Your task to perform on an android device: turn pop-ups off in chrome Image 0: 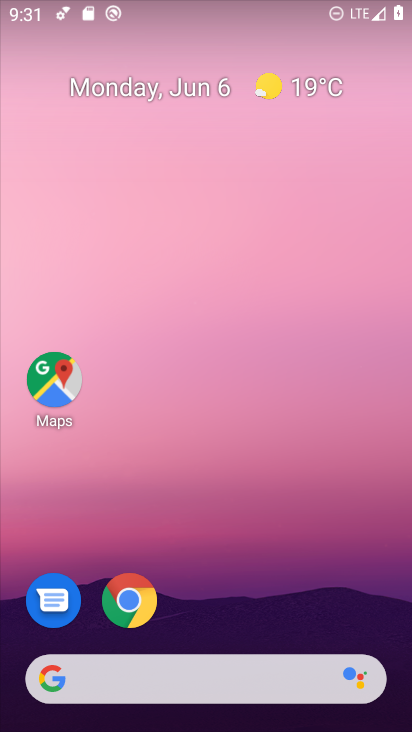
Step 0: click (145, 606)
Your task to perform on an android device: turn pop-ups off in chrome Image 1: 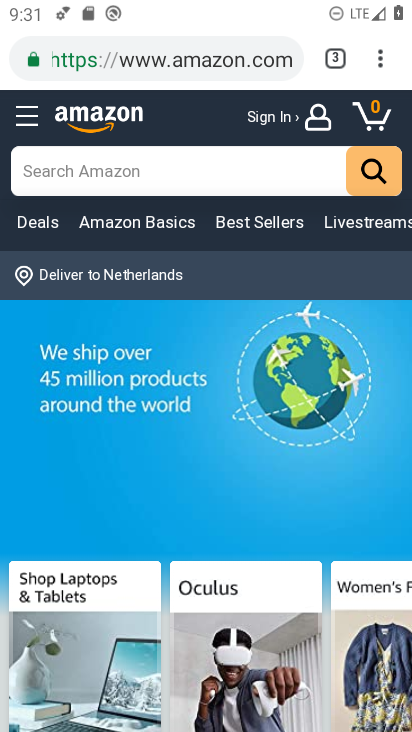
Step 1: click (379, 58)
Your task to perform on an android device: turn pop-ups off in chrome Image 2: 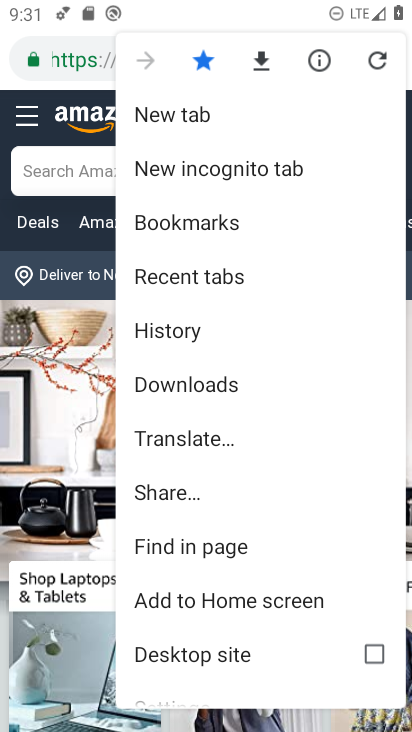
Step 2: drag from (219, 615) to (228, 370)
Your task to perform on an android device: turn pop-ups off in chrome Image 3: 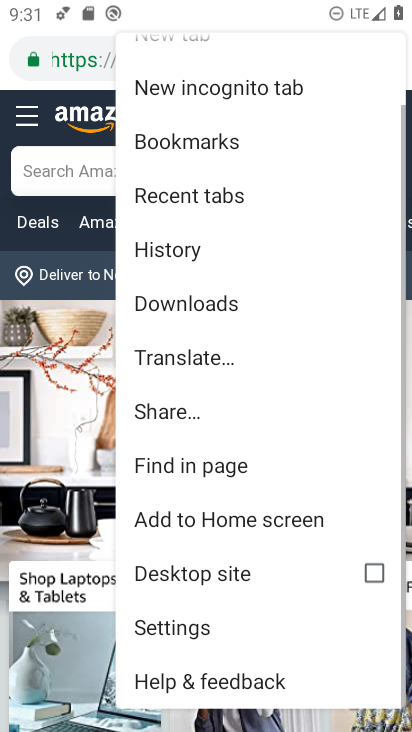
Step 3: click (206, 633)
Your task to perform on an android device: turn pop-ups off in chrome Image 4: 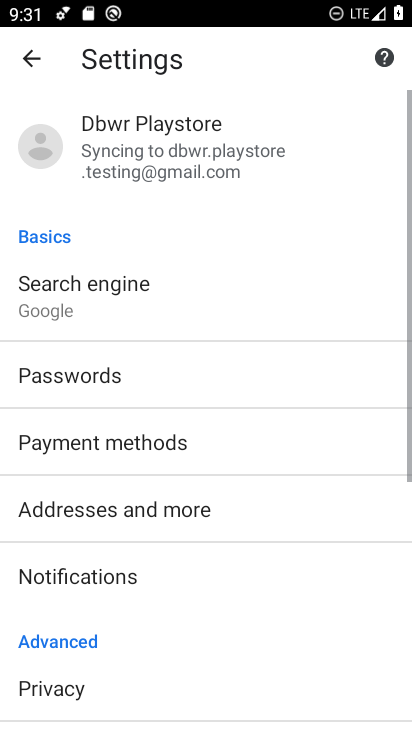
Step 4: drag from (128, 637) to (187, 343)
Your task to perform on an android device: turn pop-ups off in chrome Image 5: 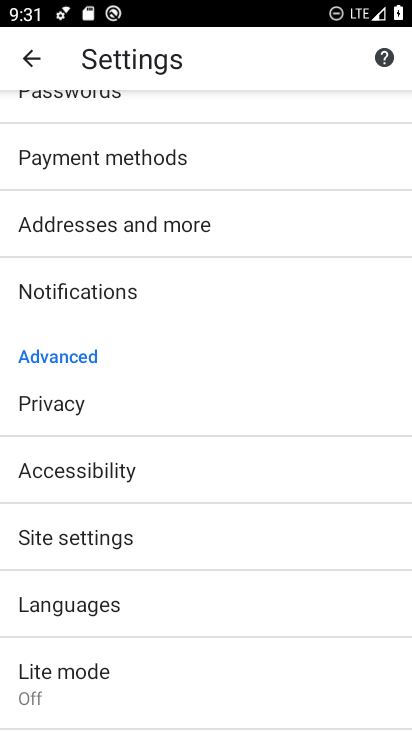
Step 5: click (145, 541)
Your task to perform on an android device: turn pop-ups off in chrome Image 6: 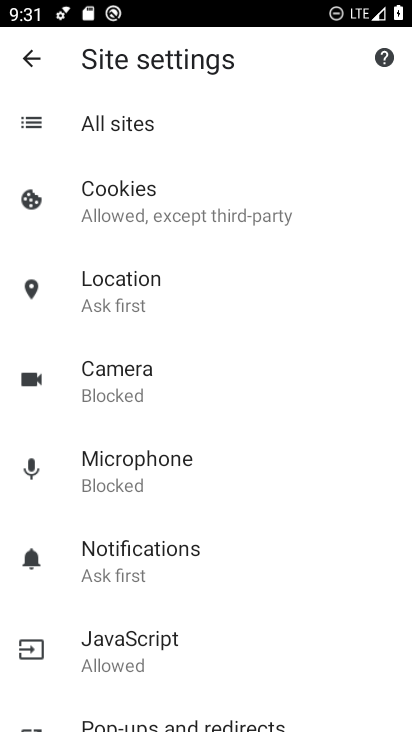
Step 6: drag from (283, 573) to (289, 60)
Your task to perform on an android device: turn pop-ups off in chrome Image 7: 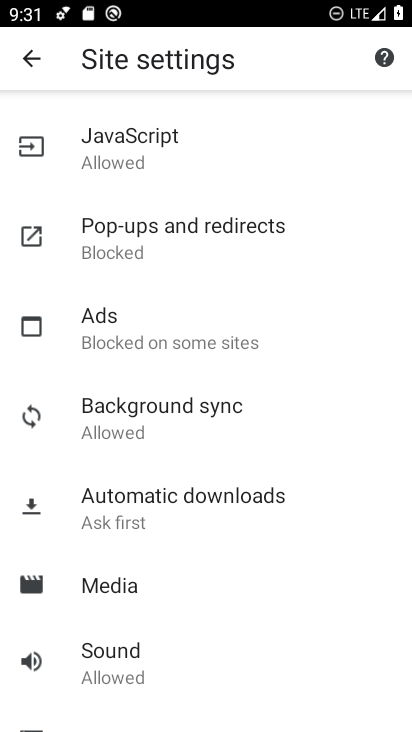
Step 7: click (221, 241)
Your task to perform on an android device: turn pop-ups off in chrome Image 8: 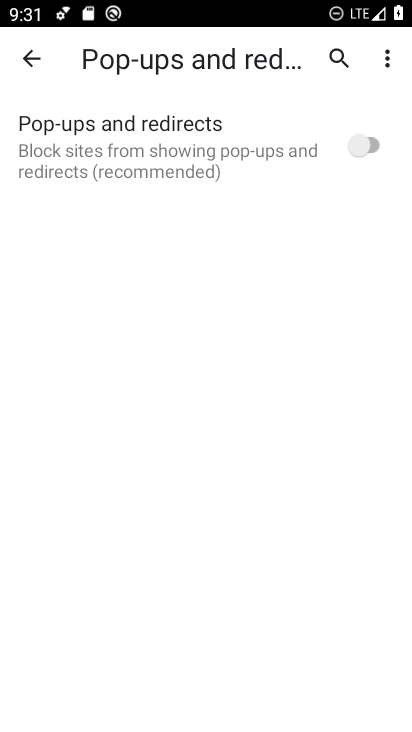
Step 8: task complete